Your task to perform on an android device: open device folders in google photos Image 0: 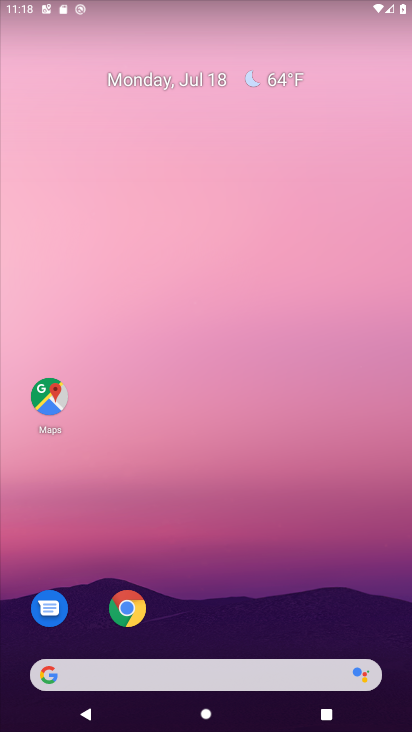
Step 0: drag from (252, 582) to (310, 24)
Your task to perform on an android device: open device folders in google photos Image 1: 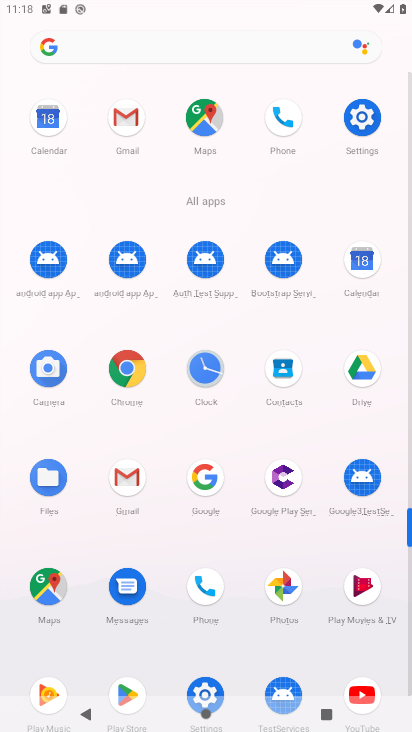
Step 1: click (279, 593)
Your task to perform on an android device: open device folders in google photos Image 2: 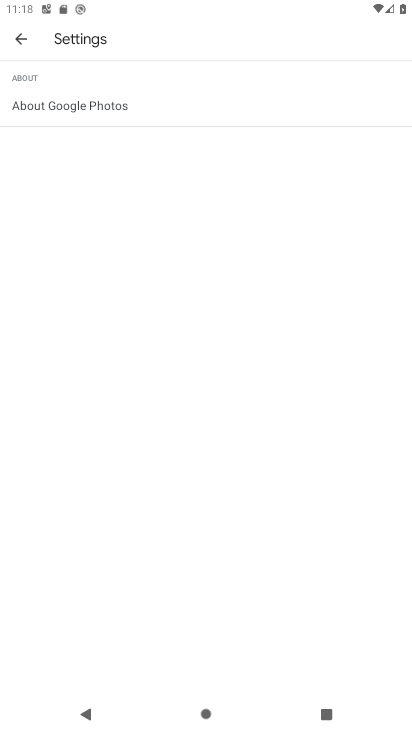
Step 2: press back button
Your task to perform on an android device: open device folders in google photos Image 3: 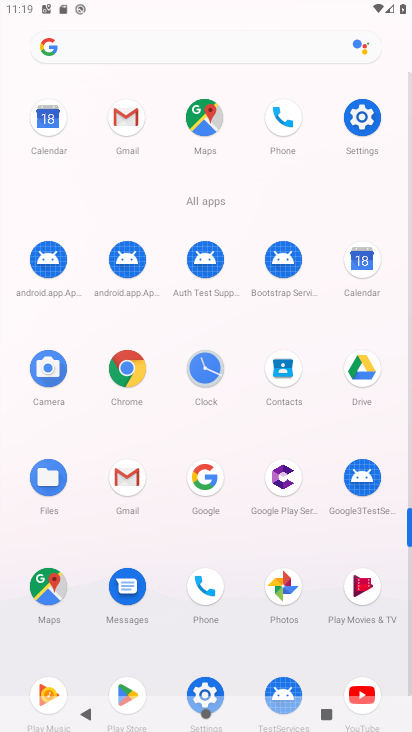
Step 3: click (278, 589)
Your task to perform on an android device: open device folders in google photos Image 4: 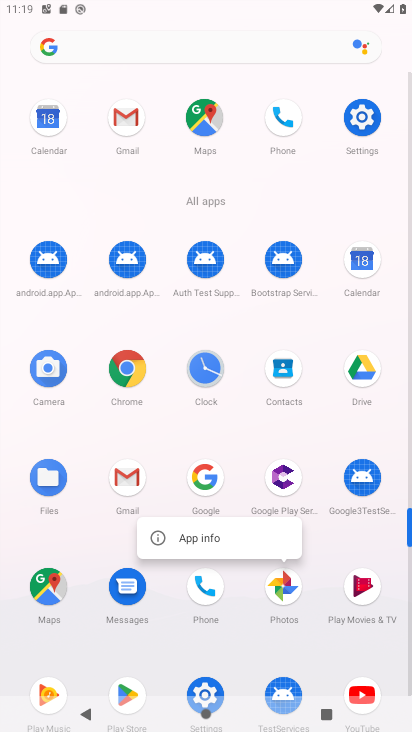
Step 4: click (271, 592)
Your task to perform on an android device: open device folders in google photos Image 5: 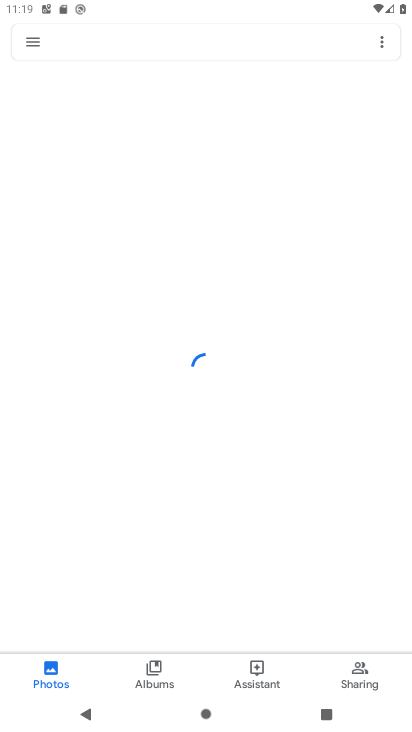
Step 5: click (30, 49)
Your task to perform on an android device: open device folders in google photos Image 6: 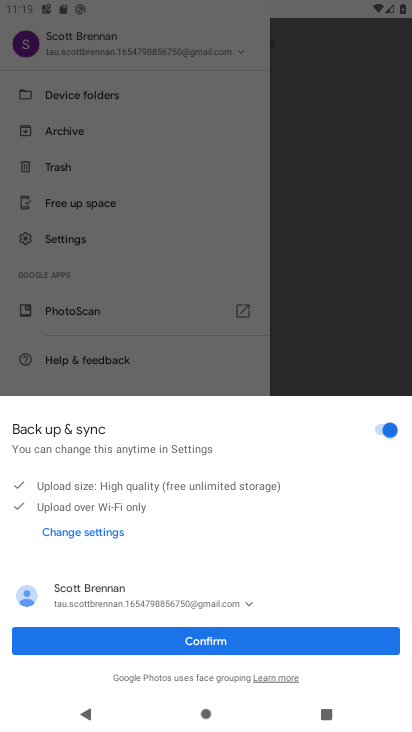
Step 6: click (245, 638)
Your task to perform on an android device: open device folders in google photos Image 7: 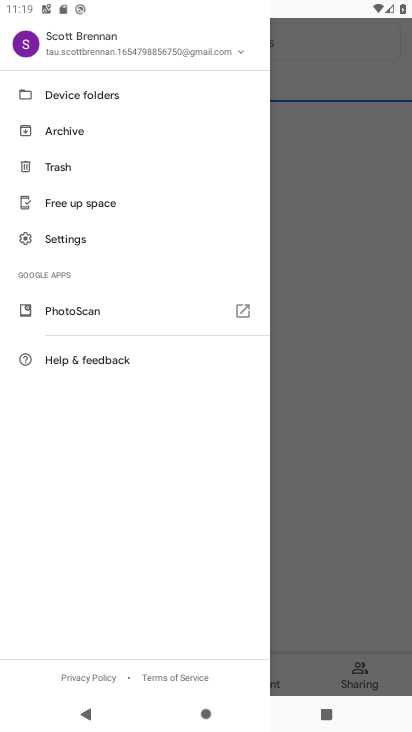
Step 7: click (132, 86)
Your task to perform on an android device: open device folders in google photos Image 8: 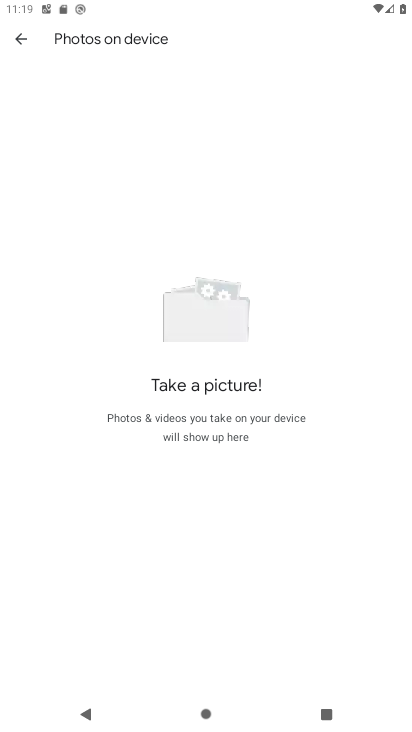
Step 8: task complete